Your task to perform on an android device: toggle notification dots Image 0: 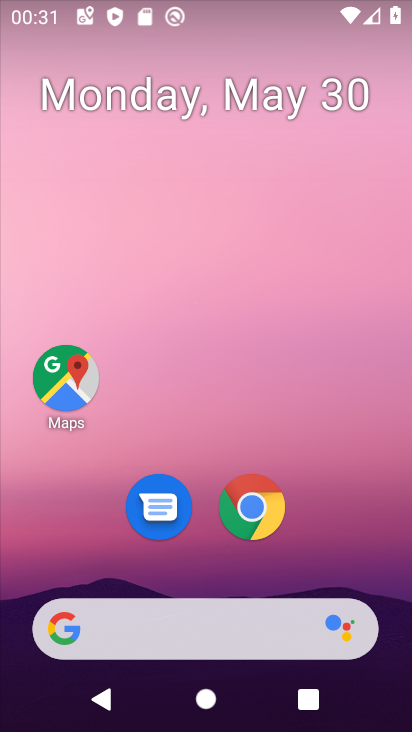
Step 0: drag from (334, 546) to (307, 230)
Your task to perform on an android device: toggle notification dots Image 1: 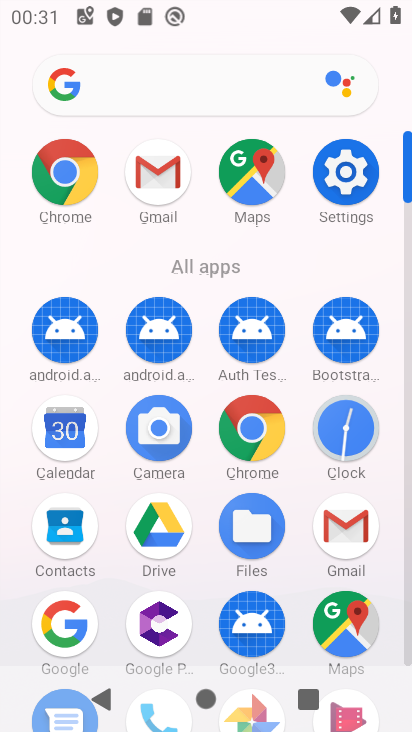
Step 1: click (353, 165)
Your task to perform on an android device: toggle notification dots Image 2: 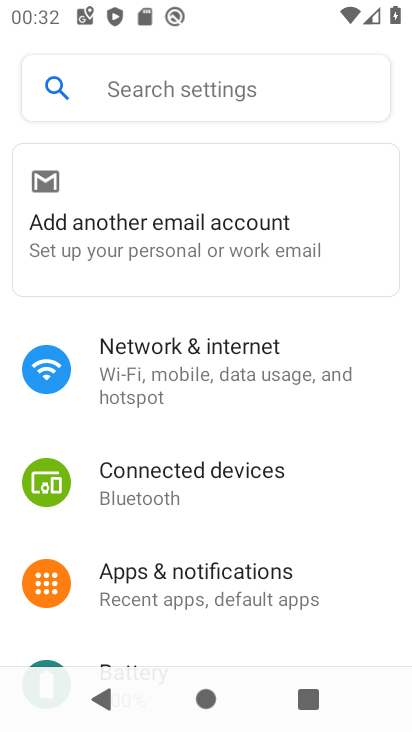
Step 2: click (273, 81)
Your task to perform on an android device: toggle notification dots Image 3: 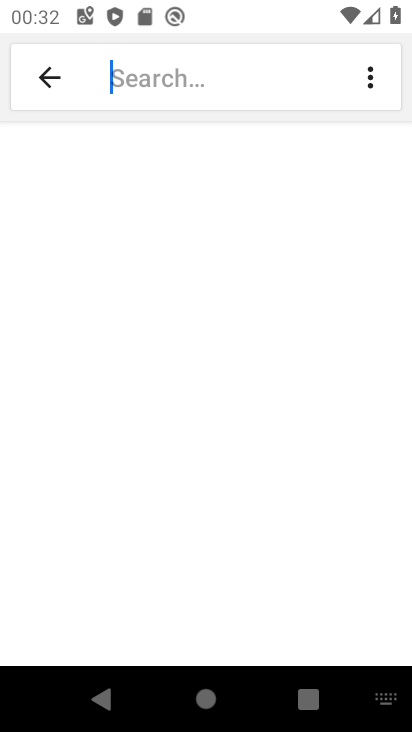
Step 3: click (224, 77)
Your task to perform on an android device: toggle notification dots Image 4: 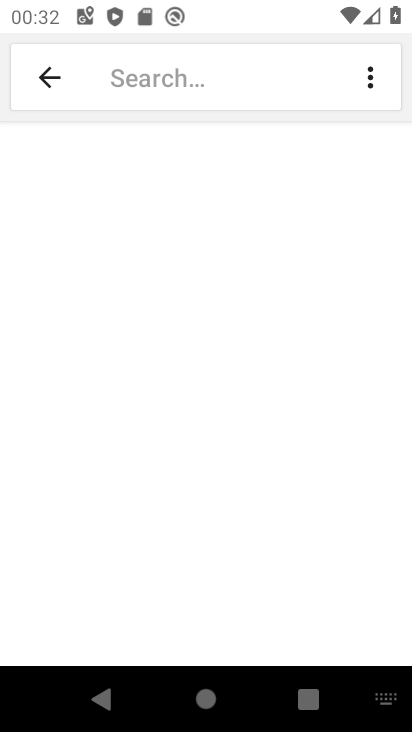
Step 4: type "notification dots"
Your task to perform on an android device: toggle notification dots Image 5: 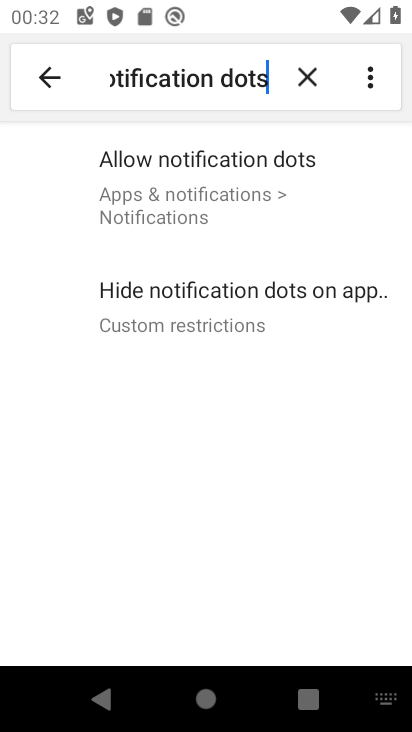
Step 5: click (159, 168)
Your task to perform on an android device: toggle notification dots Image 6: 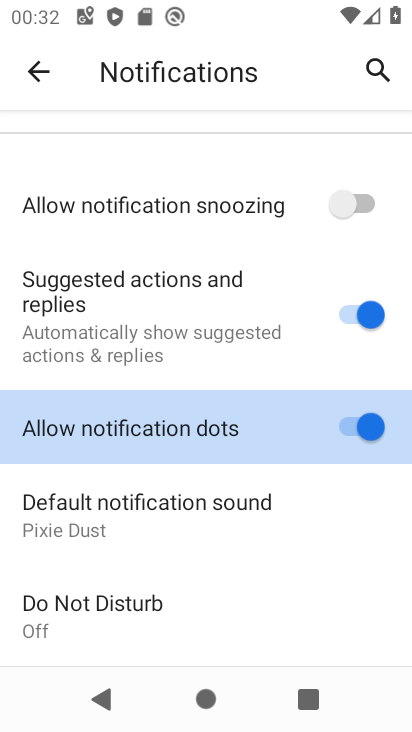
Step 6: click (359, 411)
Your task to perform on an android device: toggle notification dots Image 7: 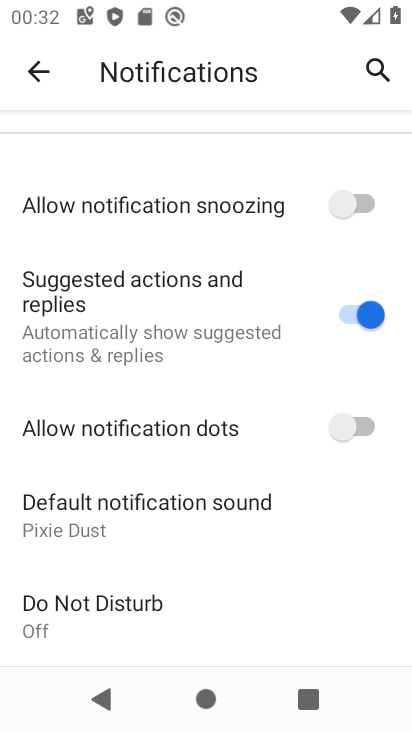
Step 7: task complete